Your task to perform on an android device: Go to location settings Image 0: 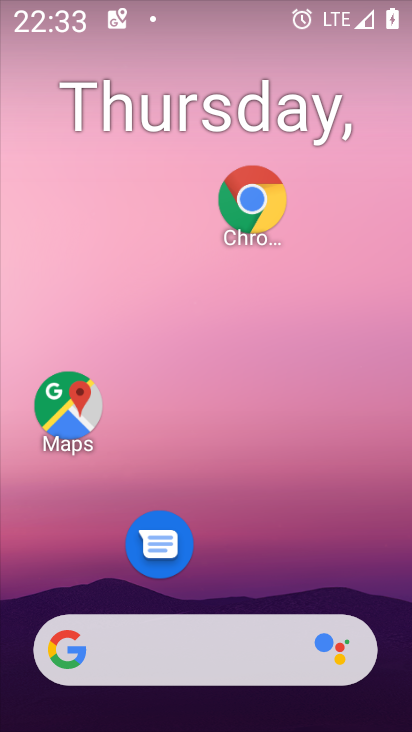
Step 0: drag from (283, 605) to (306, 0)
Your task to perform on an android device: Go to location settings Image 1: 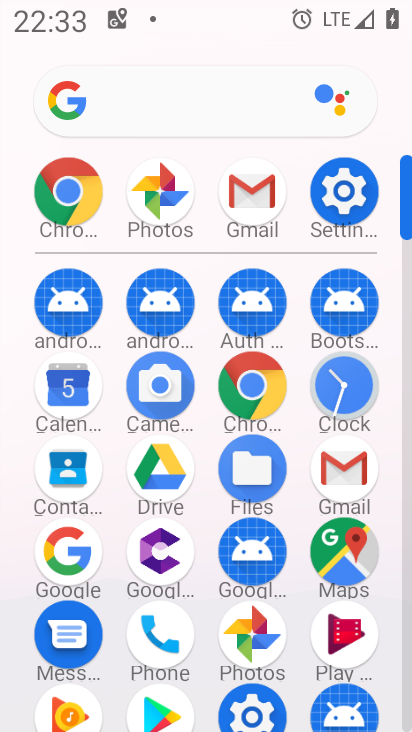
Step 1: click (348, 200)
Your task to perform on an android device: Go to location settings Image 2: 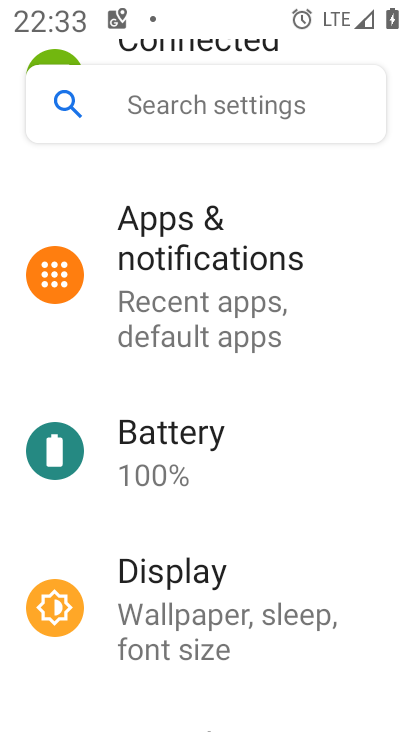
Step 2: drag from (151, 687) to (221, 195)
Your task to perform on an android device: Go to location settings Image 3: 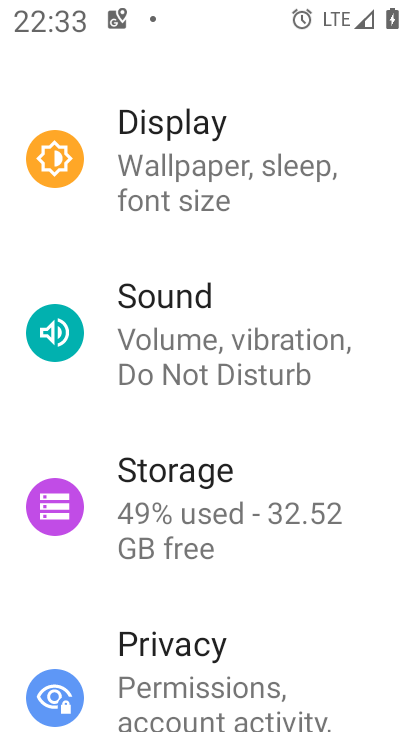
Step 3: drag from (160, 647) to (252, 145)
Your task to perform on an android device: Go to location settings Image 4: 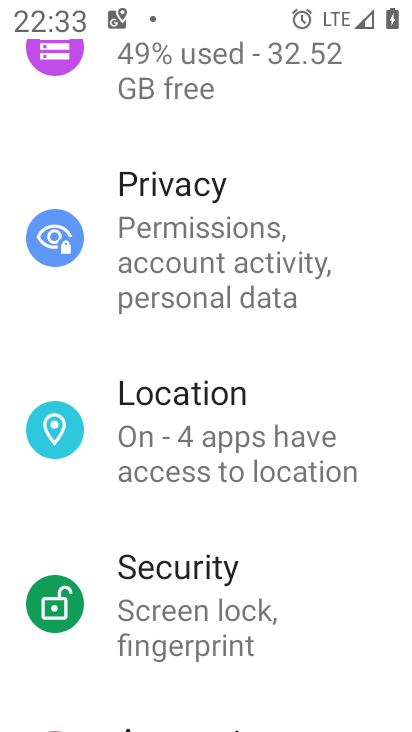
Step 4: click (220, 449)
Your task to perform on an android device: Go to location settings Image 5: 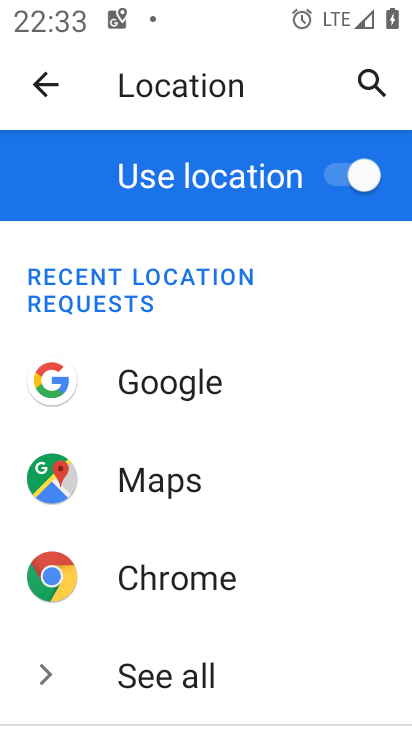
Step 5: click (201, 438)
Your task to perform on an android device: Go to location settings Image 6: 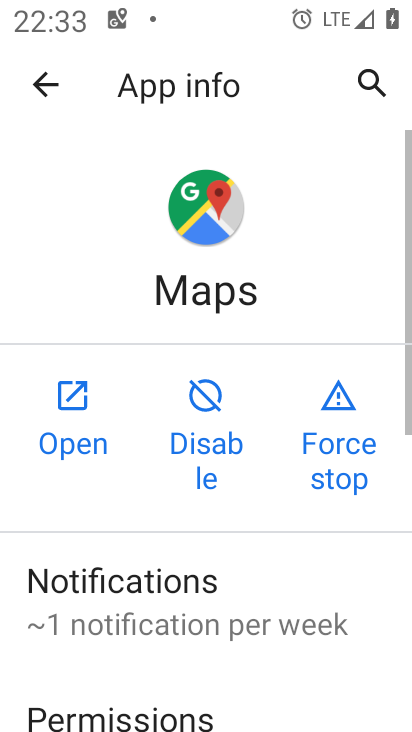
Step 6: task complete